Your task to perform on an android device: Open the map Image 0: 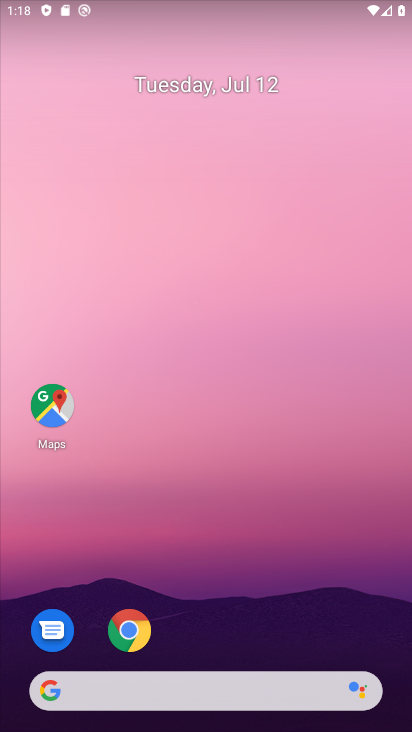
Step 0: drag from (225, 658) to (194, 151)
Your task to perform on an android device: Open the map Image 1: 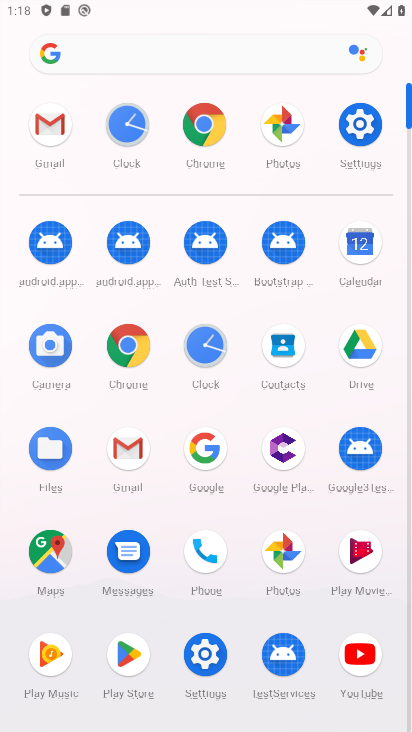
Step 1: click (54, 543)
Your task to perform on an android device: Open the map Image 2: 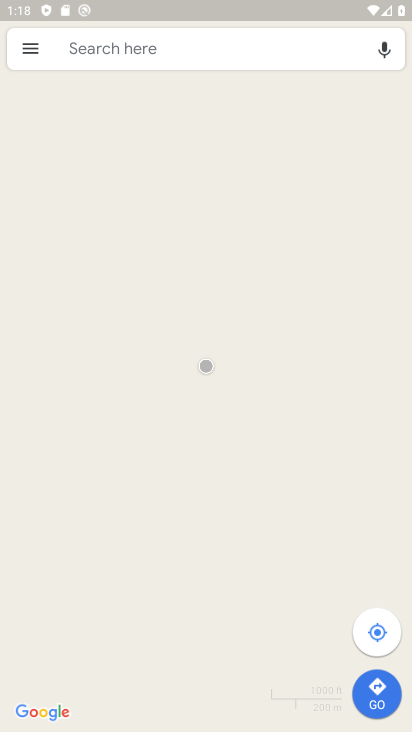
Step 2: task complete